Your task to perform on an android device: When is my next meeting? Image 0: 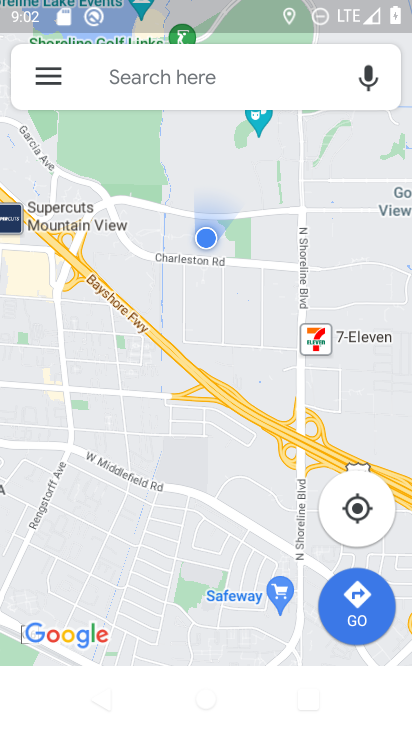
Step 0: press home button
Your task to perform on an android device: When is my next meeting? Image 1: 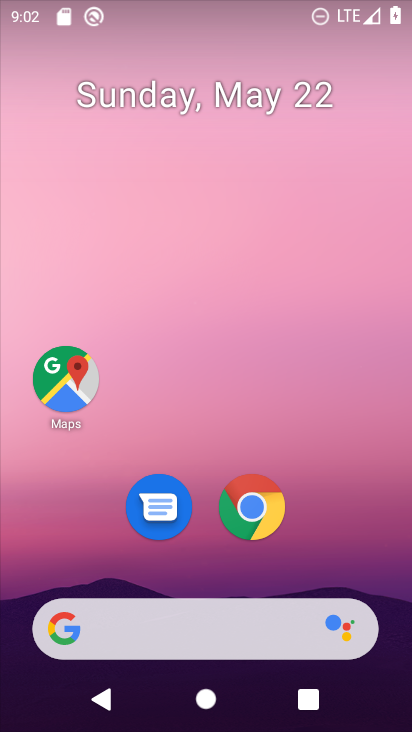
Step 1: drag from (116, 620) to (78, 21)
Your task to perform on an android device: When is my next meeting? Image 2: 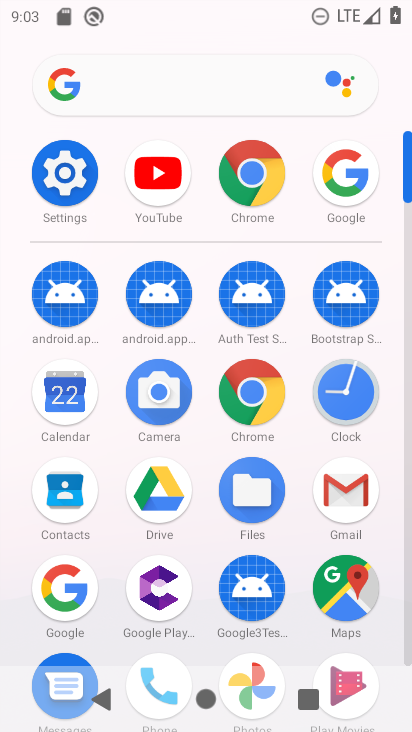
Step 2: click (66, 394)
Your task to perform on an android device: When is my next meeting? Image 3: 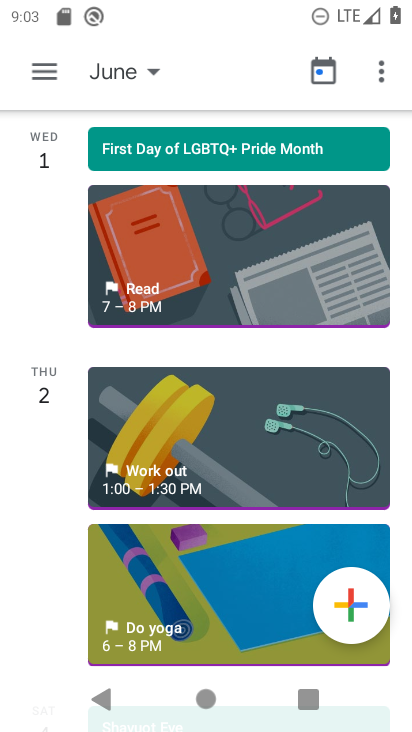
Step 3: click (49, 66)
Your task to perform on an android device: When is my next meeting? Image 4: 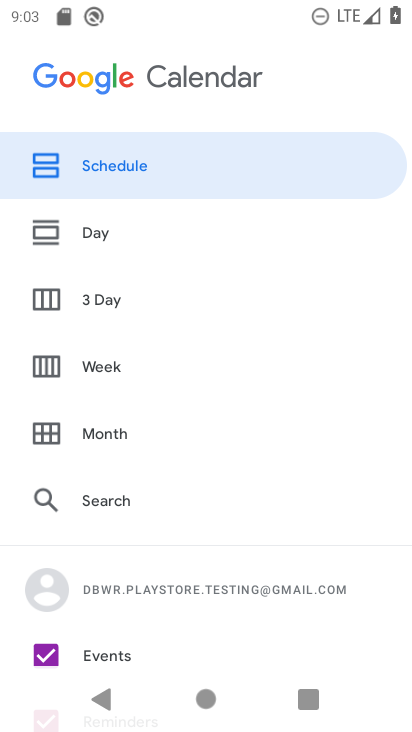
Step 4: click (170, 157)
Your task to perform on an android device: When is my next meeting? Image 5: 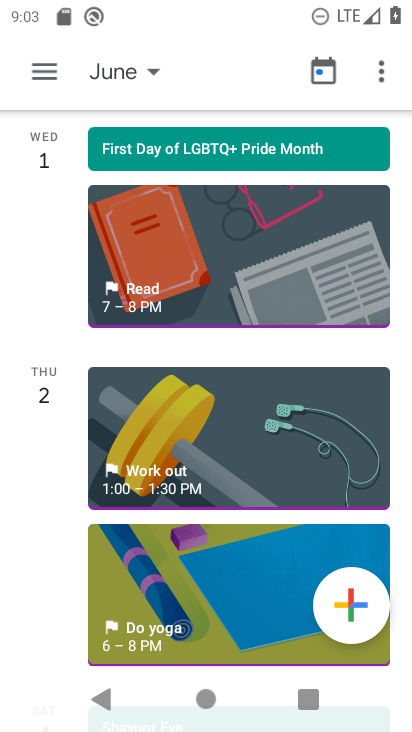
Step 5: task complete